Your task to perform on an android device: check data usage Image 0: 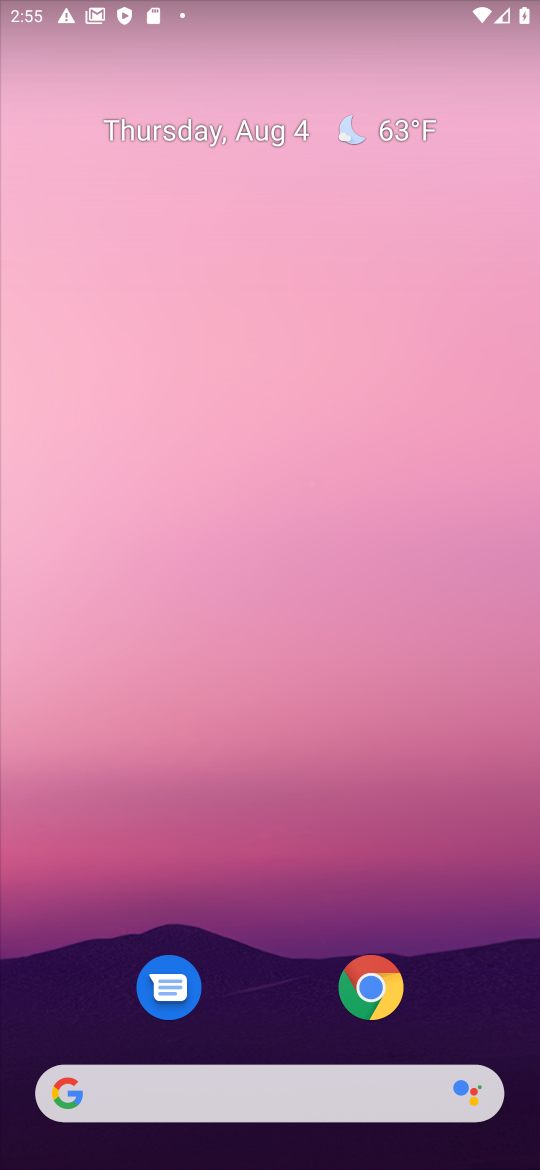
Step 0: drag from (289, 892) to (266, 291)
Your task to perform on an android device: check data usage Image 1: 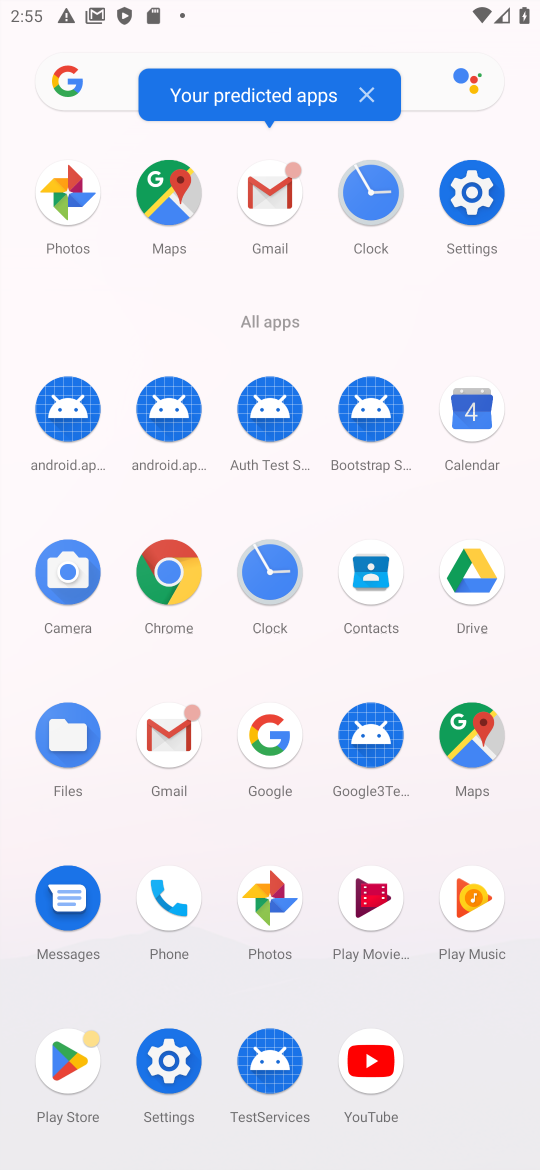
Step 1: click (466, 204)
Your task to perform on an android device: check data usage Image 2: 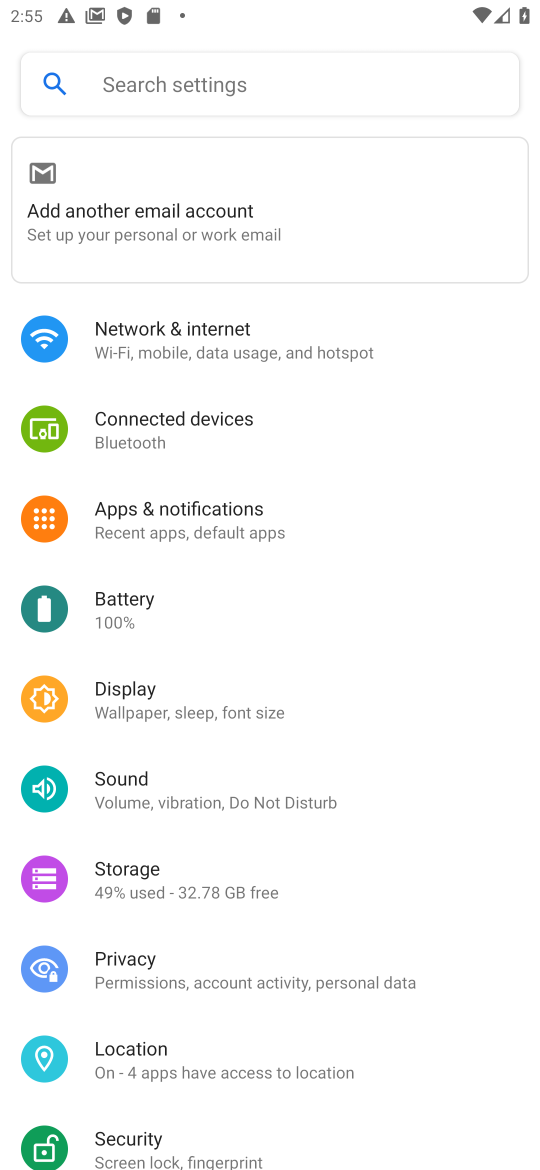
Step 2: click (138, 351)
Your task to perform on an android device: check data usage Image 3: 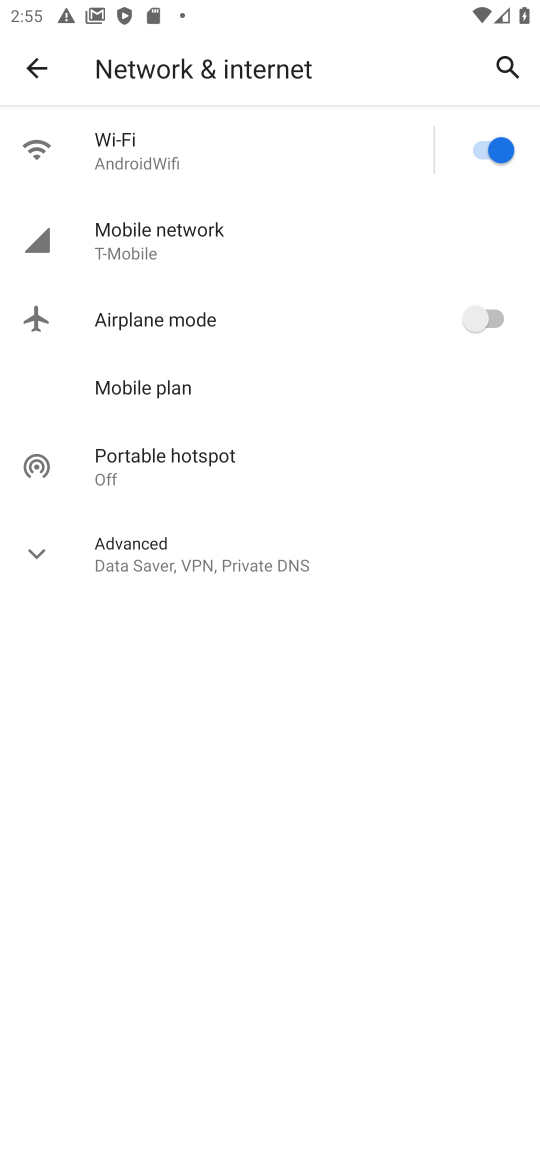
Step 3: click (170, 249)
Your task to perform on an android device: check data usage Image 4: 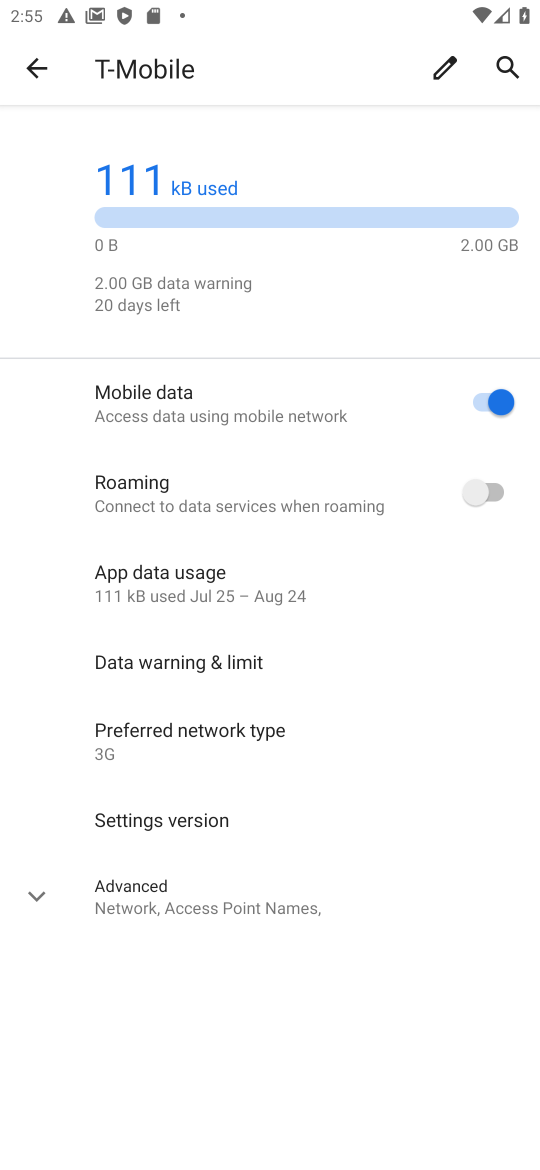
Step 4: task complete